Your task to perform on an android device: Open the Play Movies app and select the watchlist tab. Image 0: 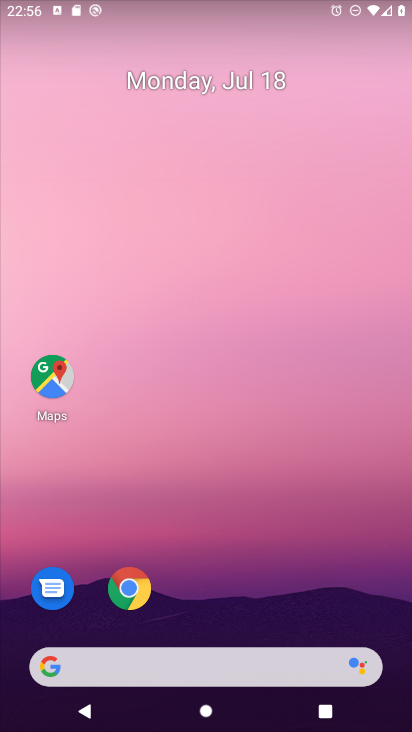
Step 0: drag from (387, 625) to (336, 20)
Your task to perform on an android device: Open the Play Movies app and select the watchlist tab. Image 1: 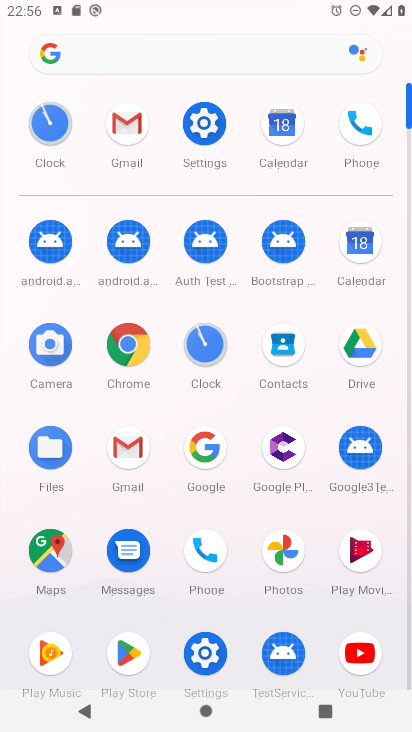
Step 1: click (365, 553)
Your task to perform on an android device: Open the Play Movies app and select the watchlist tab. Image 2: 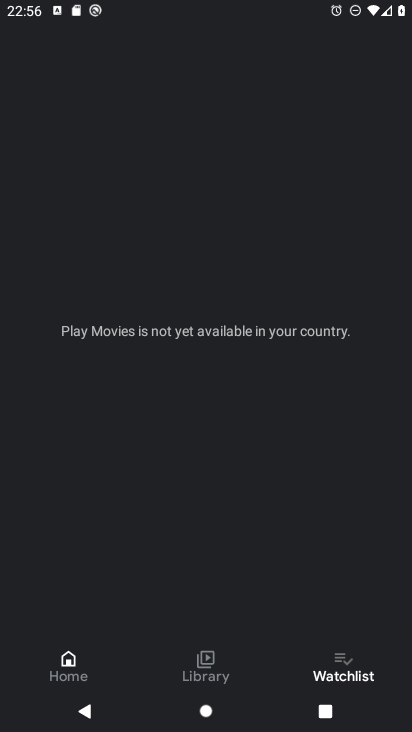
Step 2: click (339, 674)
Your task to perform on an android device: Open the Play Movies app and select the watchlist tab. Image 3: 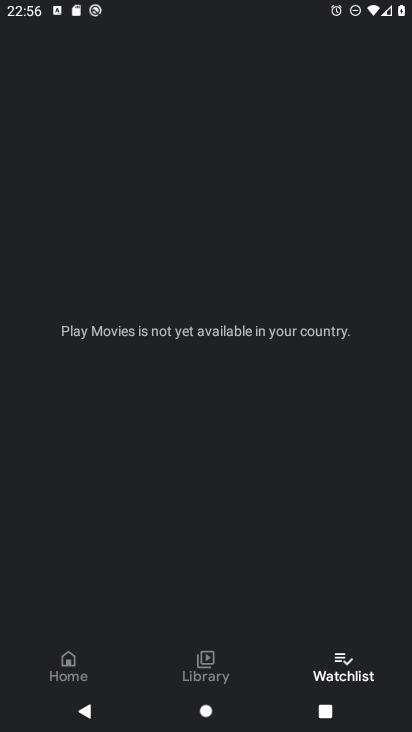
Step 3: task complete